Your task to perform on an android device: Go to Yahoo.com Image 0: 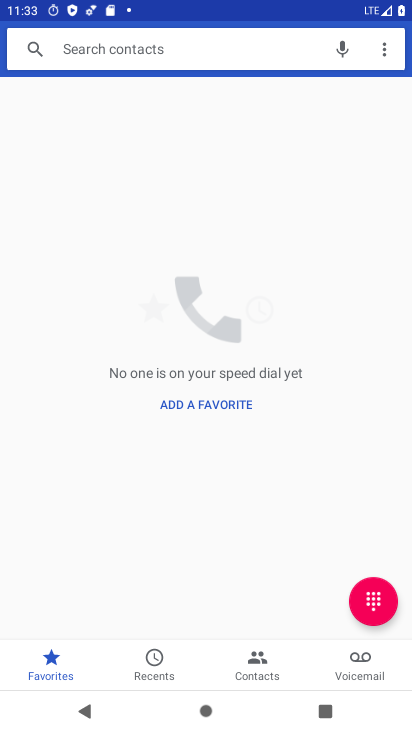
Step 0: press home button
Your task to perform on an android device: Go to Yahoo.com Image 1: 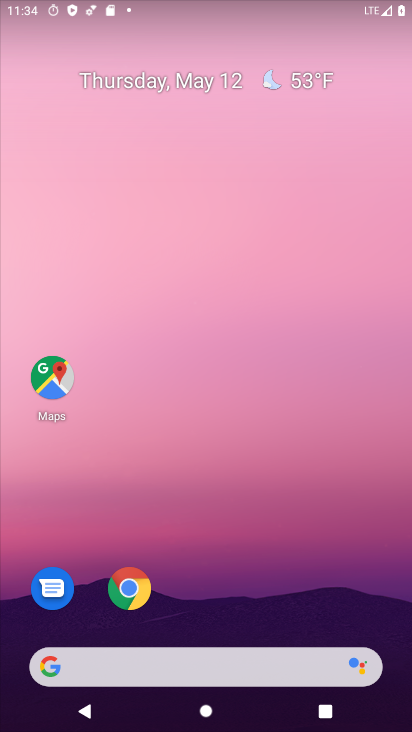
Step 1: drag from (237, 589) to (228, 128)
Your task to perform on an android device: Go to Yahoo.com Image 2: 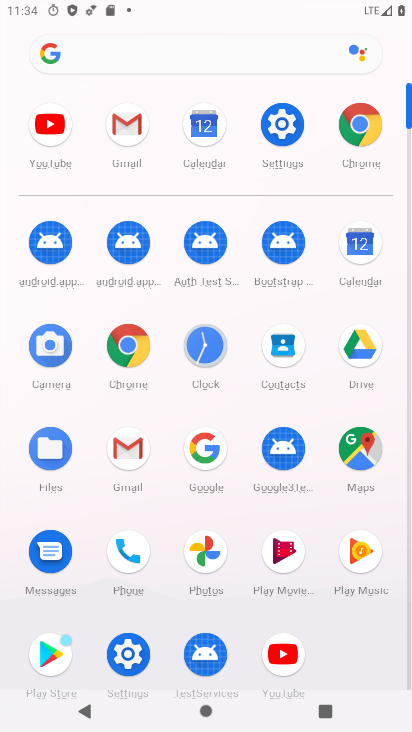
Step 2: click (131, 339)
Your task to perform on an android device: Go to Yahoo.com Image 3: 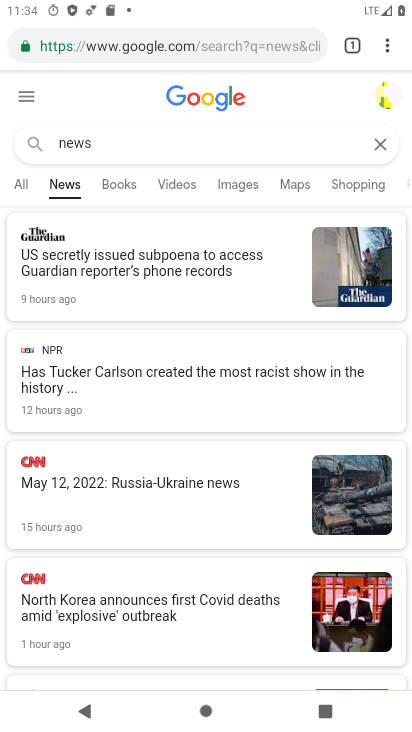
Step 3: click (153, 30)
Your task to perform on an android device: Go to Yahoo.com Image 4: 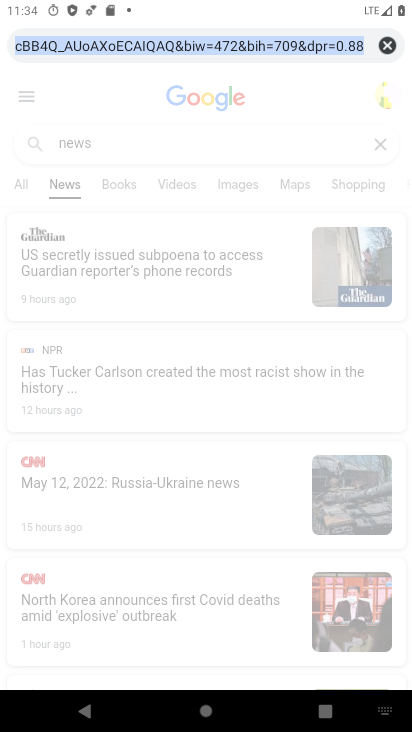
Step 4: type "yahoo.com"
Your task to perform on an android device: Go to Yahoo.com Image 5: 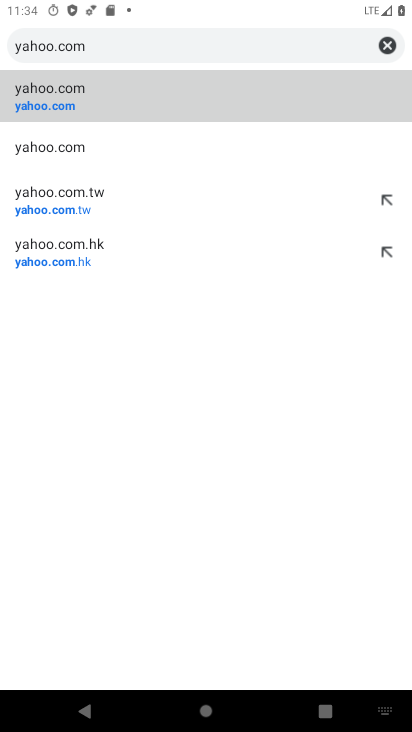
Step 5: click (49, 103)
Your task to perform on an android device: Go to Yahoo.com Image 6: 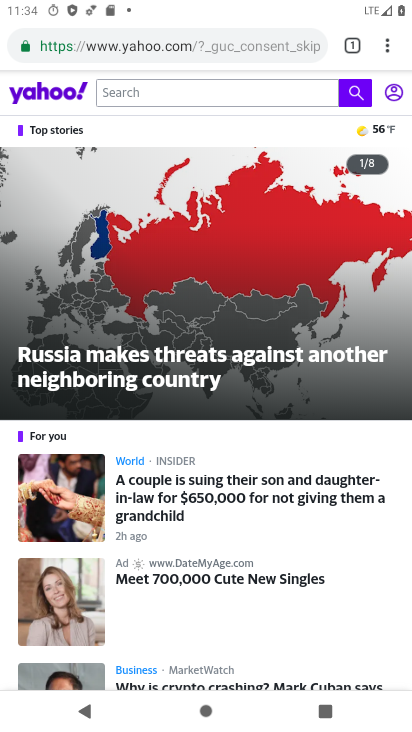
Step 6: task complete